Your task to perform on an android device: Search for Mexican restaurants on Maps Image 0: 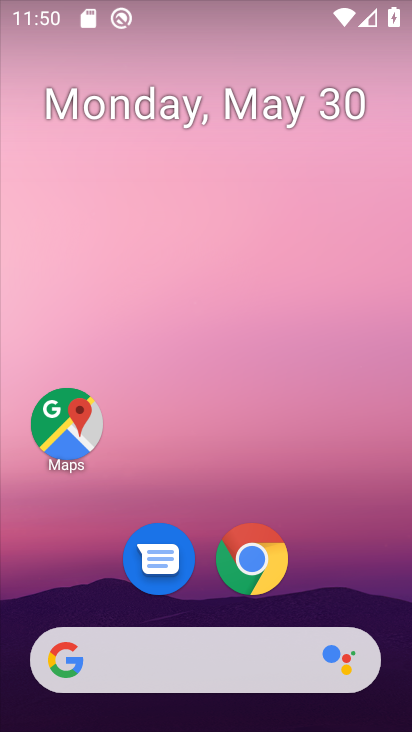
Step 0: drag from (359, 499) to (292, 143)
Your task to perform on an android device: Search for Mexican restaurants on Maps Image 1: 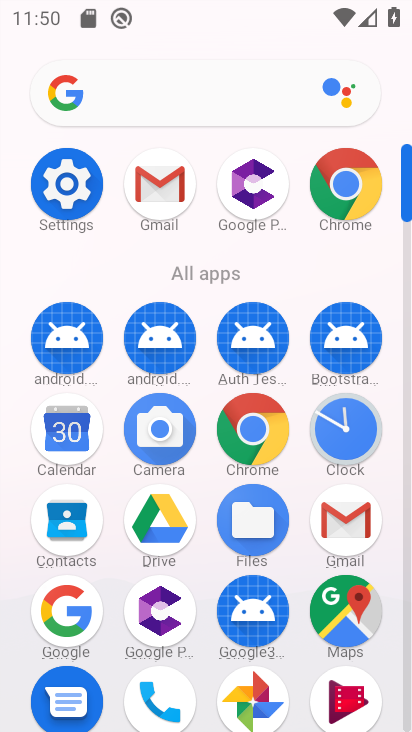
Step 1: click (334, 609)
Your task to perform on an android device: Search for Mexican restaurants on Maps Image 2: 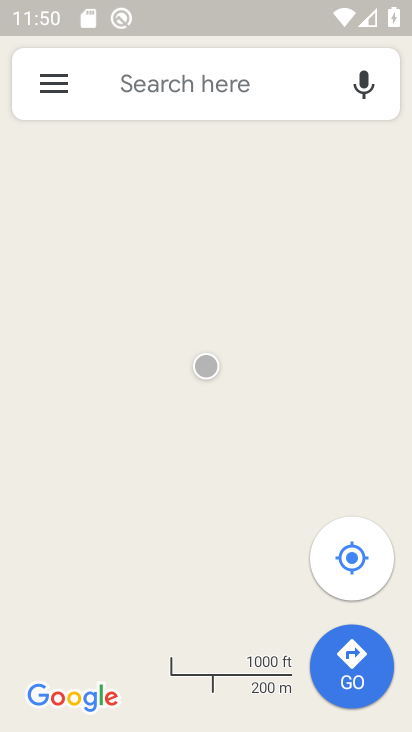
Step 2: click (210, 69)
Your task to perform on an android device: Search for Mexican restaurants on Maps Image 3: 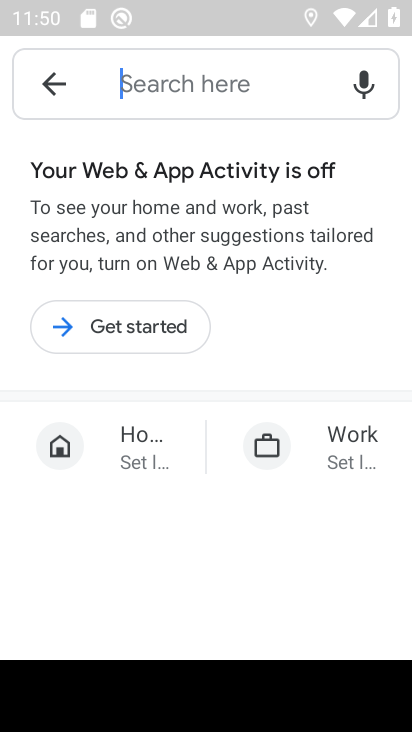
Step 3: click (199, 80)
Your task to perform on an android device: Search for Mexican restaurants on Maps Image 4: 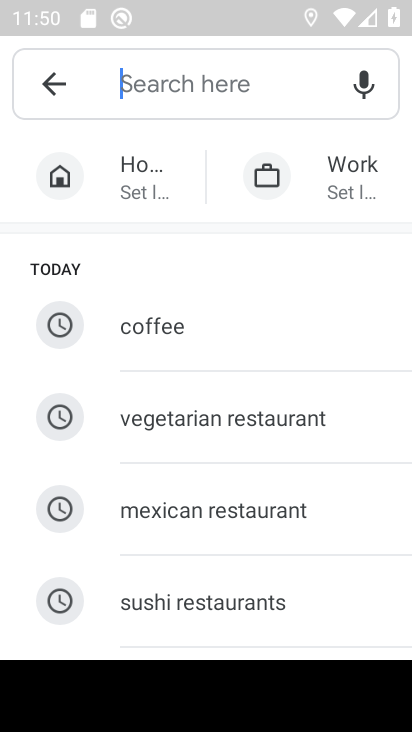
Step 4: type "m"
Your task to perform on an android device: Search for Mexican restaurants on Maps Image 5: 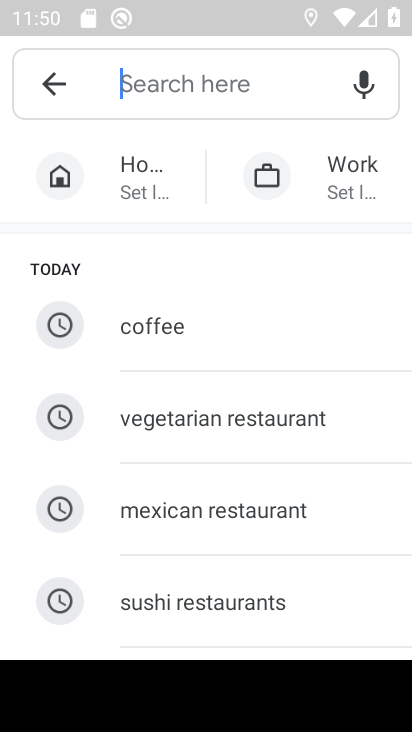
Step 5: click (346, 534)
Your task to perform on an android device: Search for Mexican restaurants on Maps Image 6: 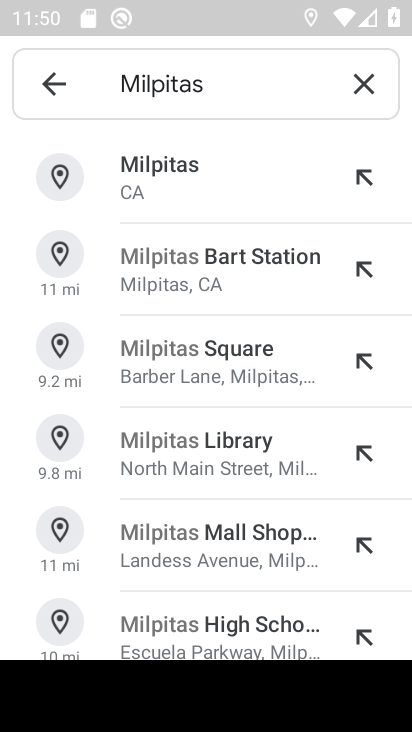
Step 6: click (352, 75)
Your task to perform on an android device: Search for Mexican restaurants on Maps Image 7: 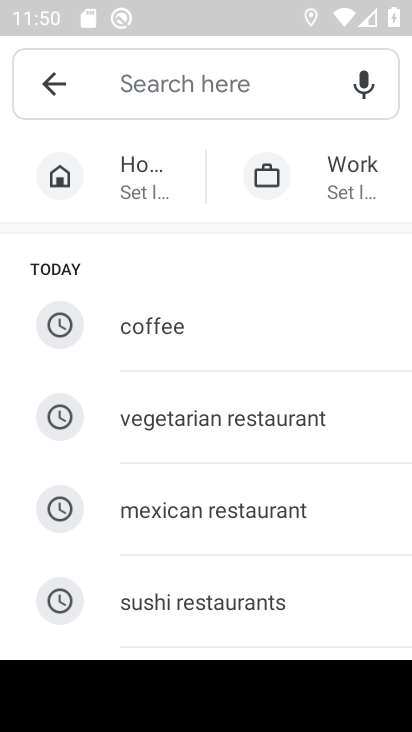
Step 7: click (190, 510)
Your task to perform on an android device: Search for Mexican restaurants on Maps Image 8: 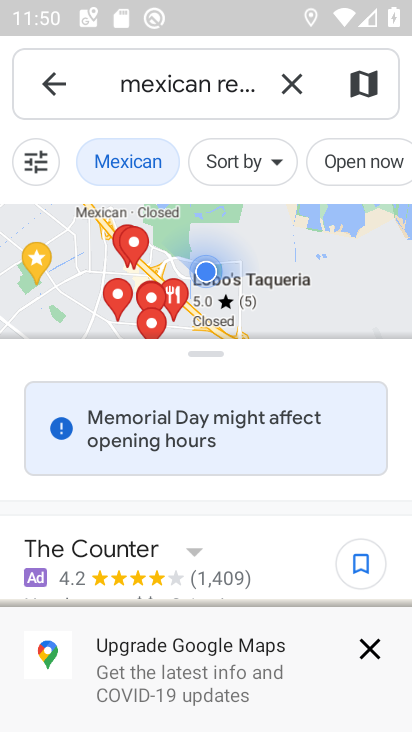
Step 8: task complete